Your task to perform on an android device: Check the weather Image 0: 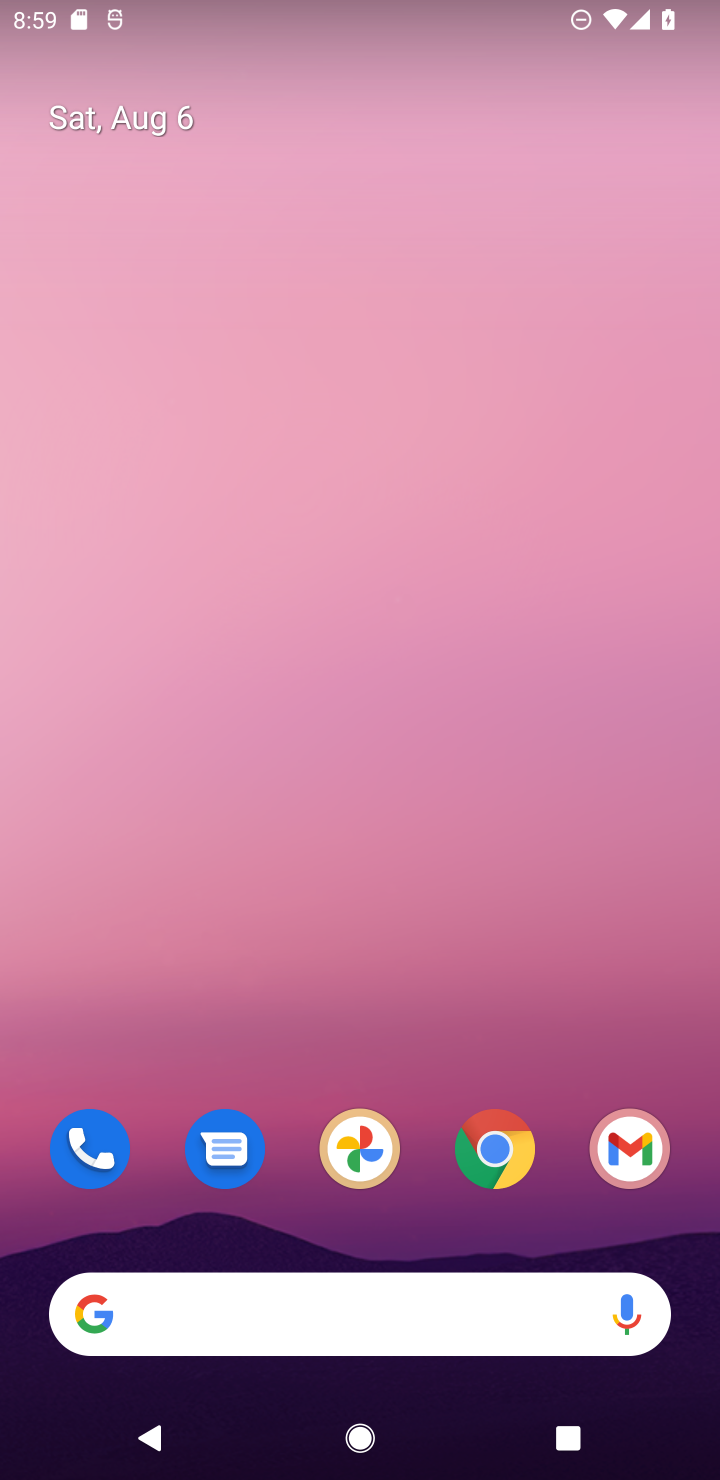
Step 0: drag from (390, 1295) to (413, 86)
Your task to perform on an android device: Check the weather Image 1: 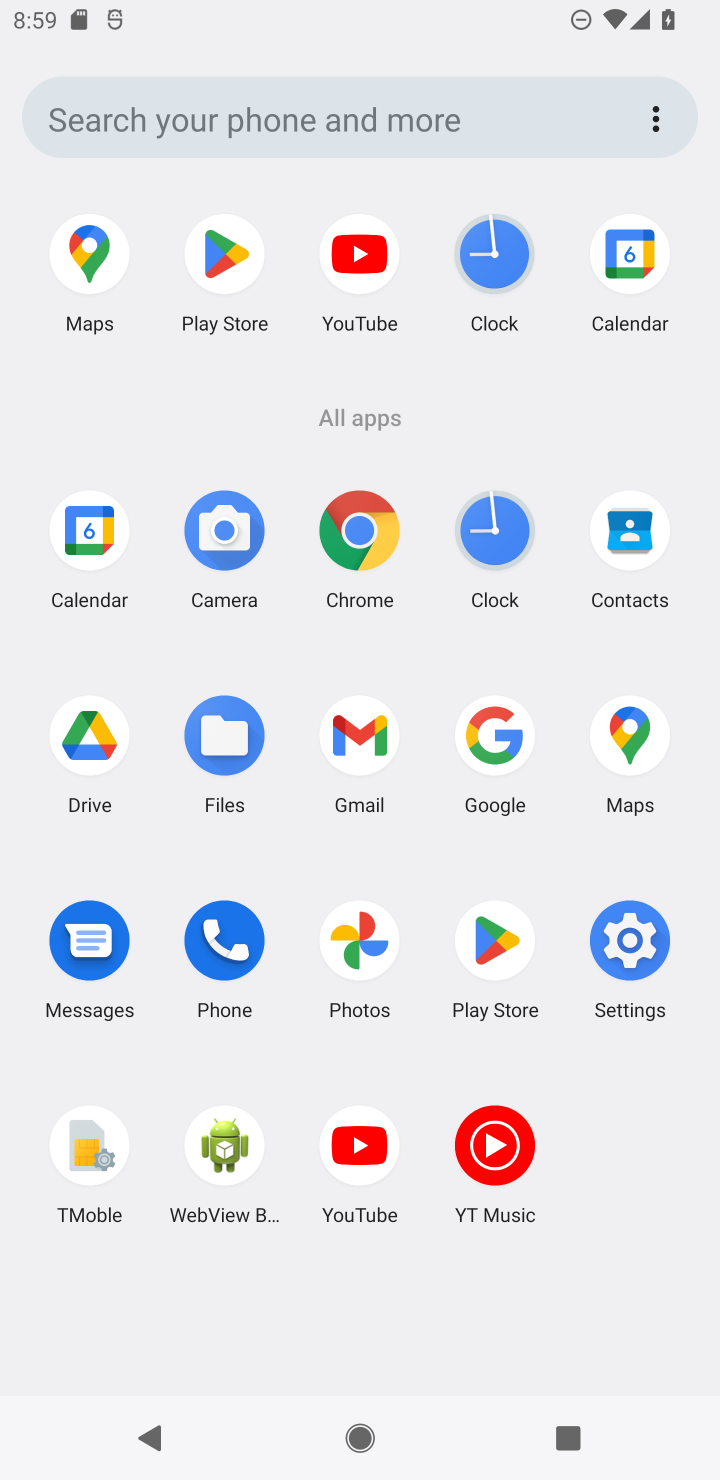
Step 1: click (329, 551)
Your task to perform on an android device: Check the weather Image 2: 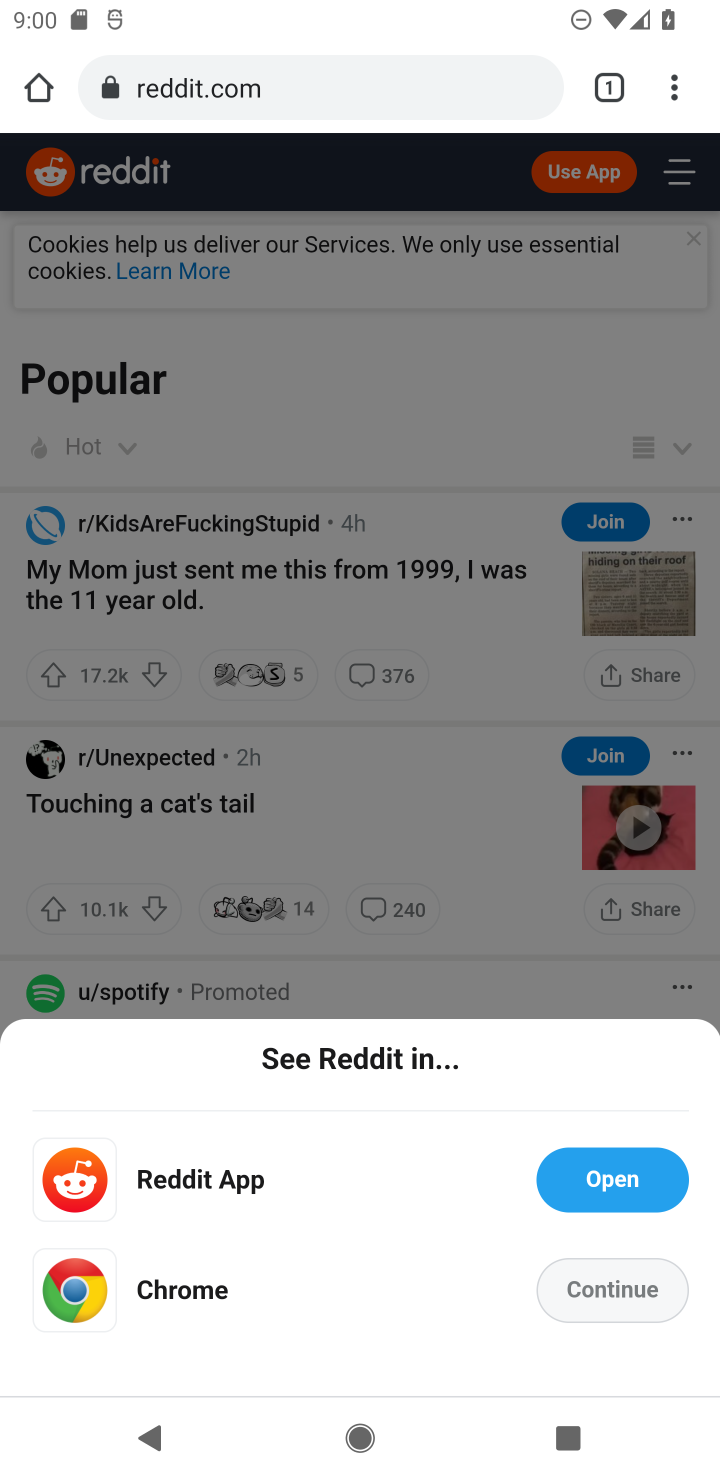
Step 2: click (261, 92)
Your task to perform on an android device: Check the weather Image 3: 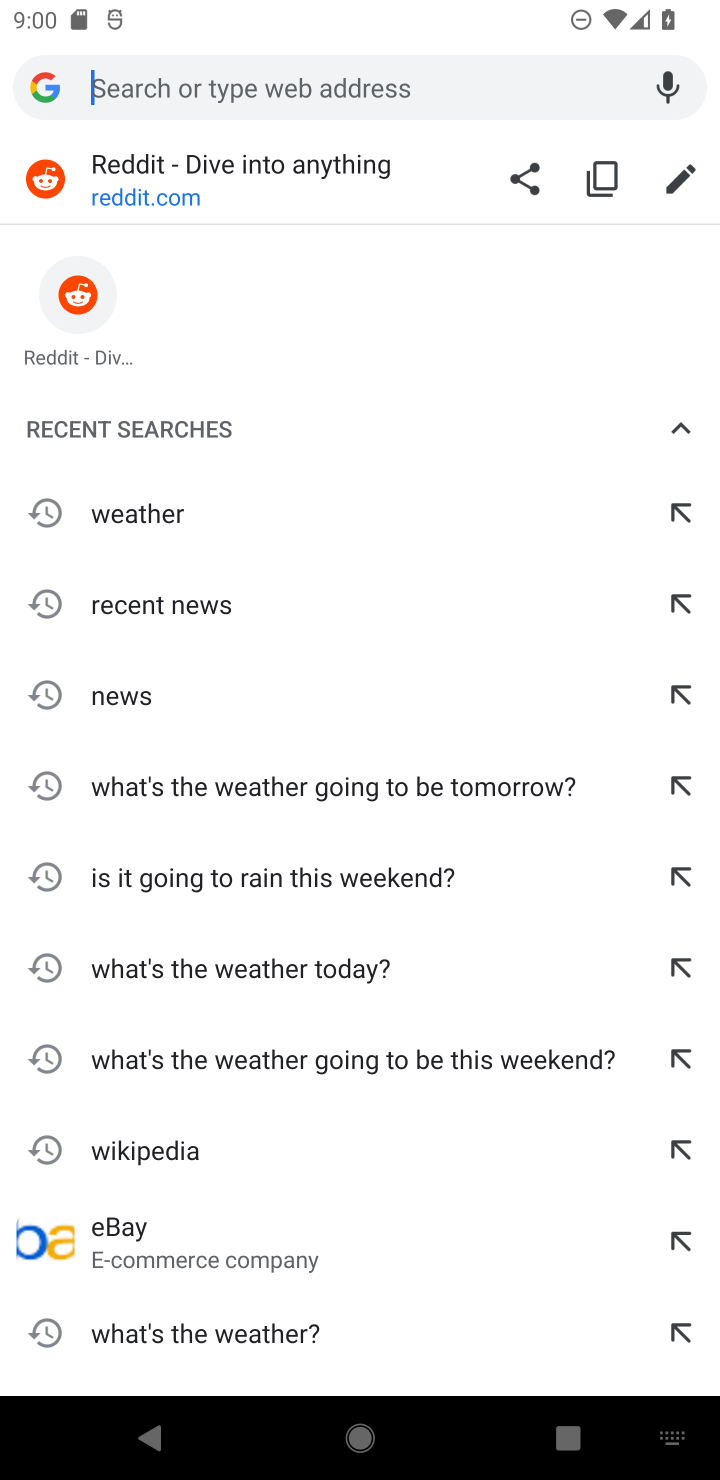
Step 3: type "wweather"
Your task to perform on an android device: Check the weather Image 4: 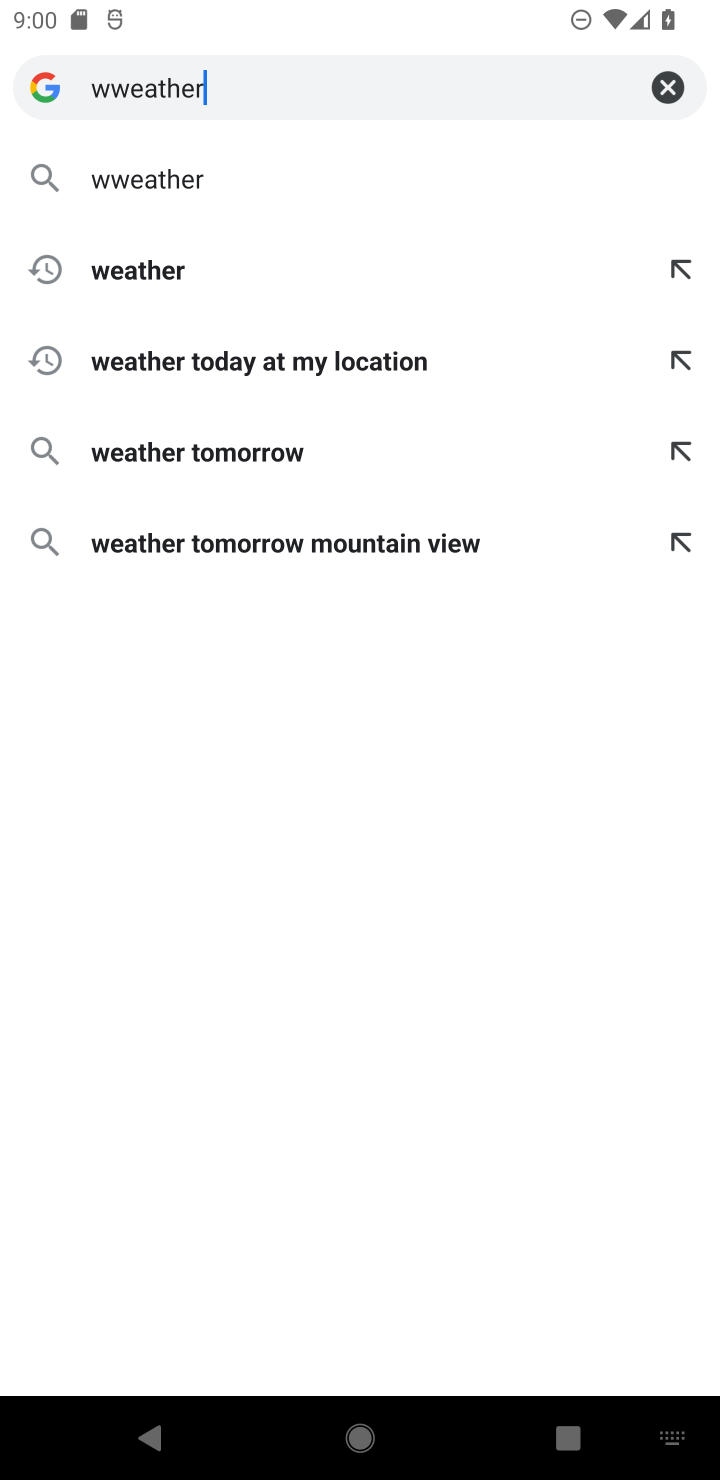
Step 4: click (189, 169)
Your task to perform on an android device: Check the weather Image 5: 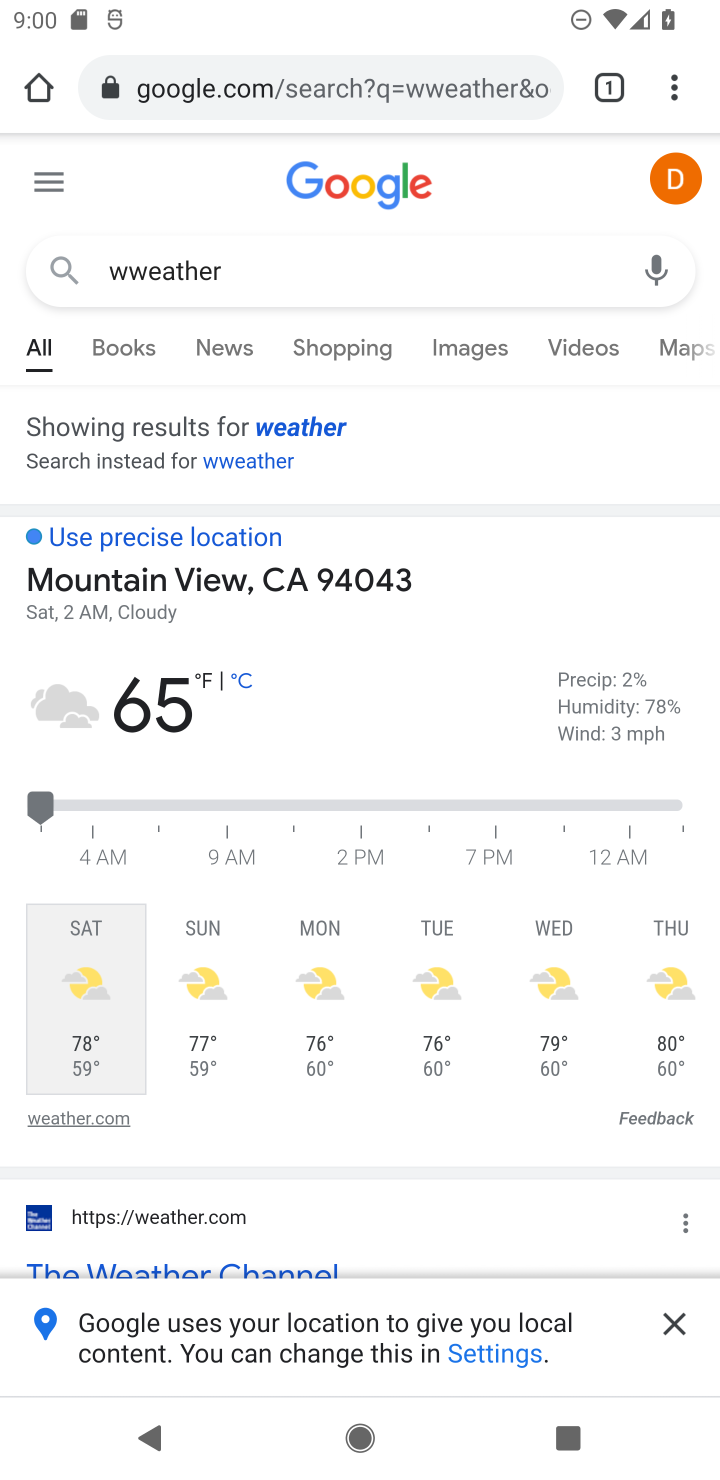
Step 5: task complete